Your task to perform on an android device: Open Youtube and go to "Your channel" Image 0: 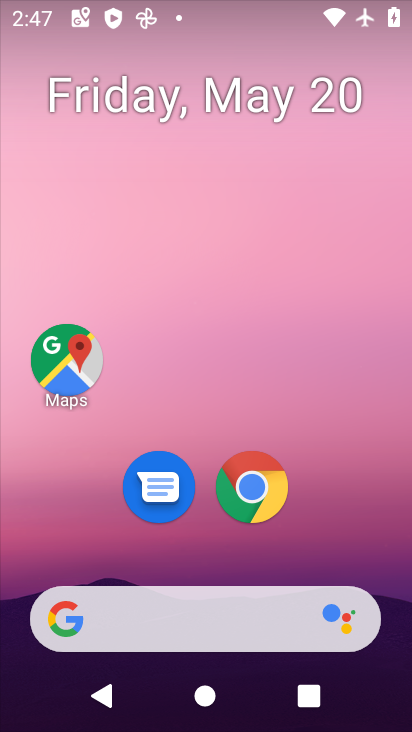
Step 0: drag from (350, 603) to (394, 166)
Your task to perform on an android device: Open Youtube and go to "Your channel" Image 1: 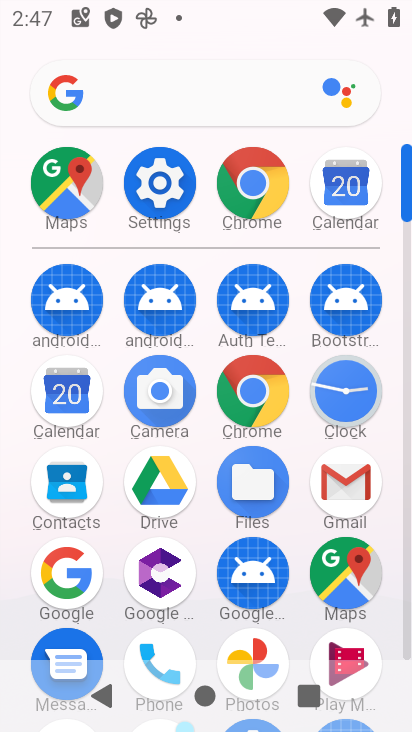
Step 1: drag from (387, 587) to (392, 198)
Your task to perform on an android device: Open Youtube and go to "Your channel" Image 2: 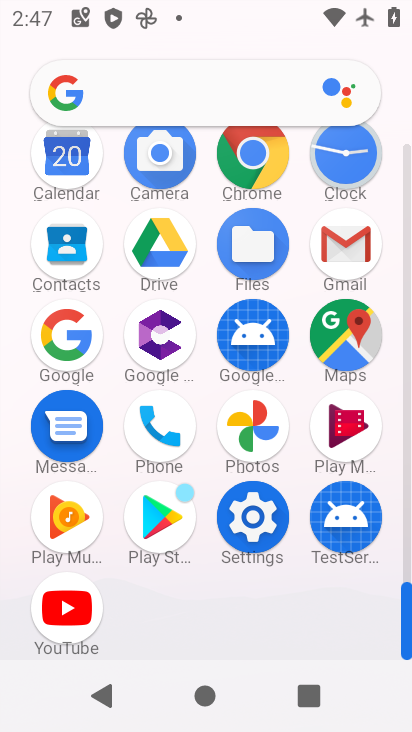
Step 2: click (54, 634)
Your task to perform on an android device: Open Youtube and go to "Your channel" Image 3: 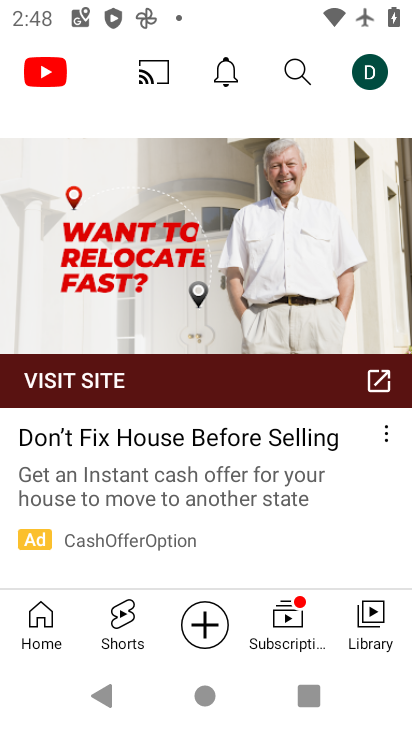
Step 3: click (372, 61)
Your task to perform on an android device: Open Youtube and go to "Your channel" Image 4: 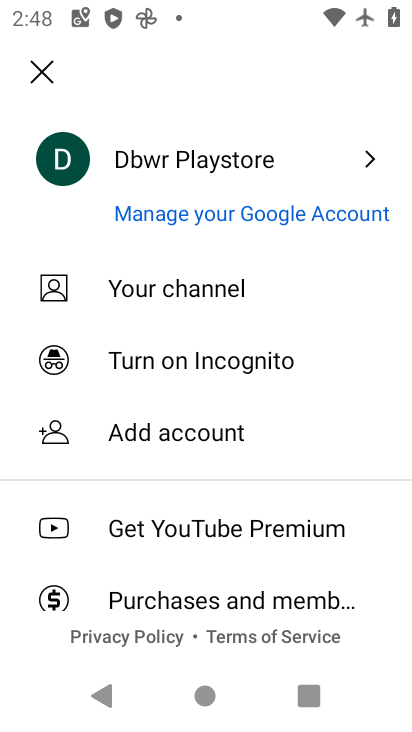
Step 4: click (166, 301)
Your task to perform on an android device: Open Youtube and go to "Your channel" Image 5: 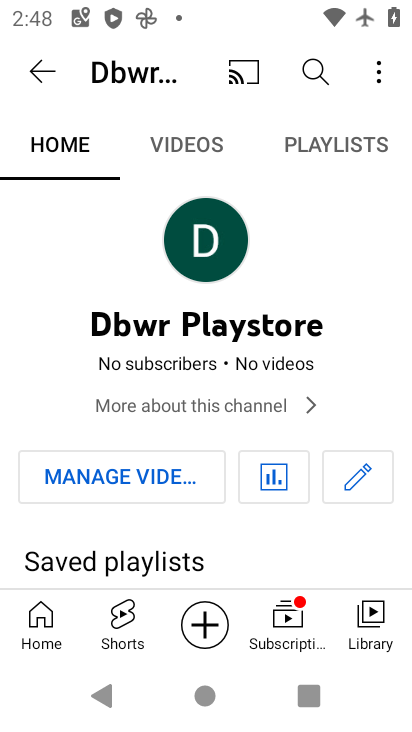
Step 5: task complete